Your task to perform on an android device: Set the phone to "Do not disturb". Image 0: 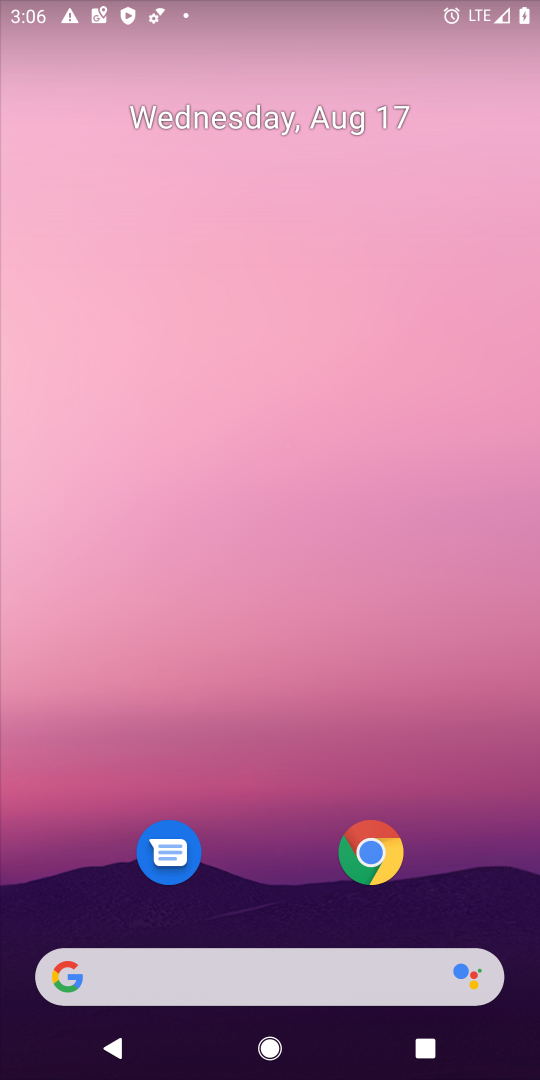
Step 0: drag from (363, 18) to (296, 725)
Your task to perform on an android device: Set the phone to "Do not disturb". Image 1: 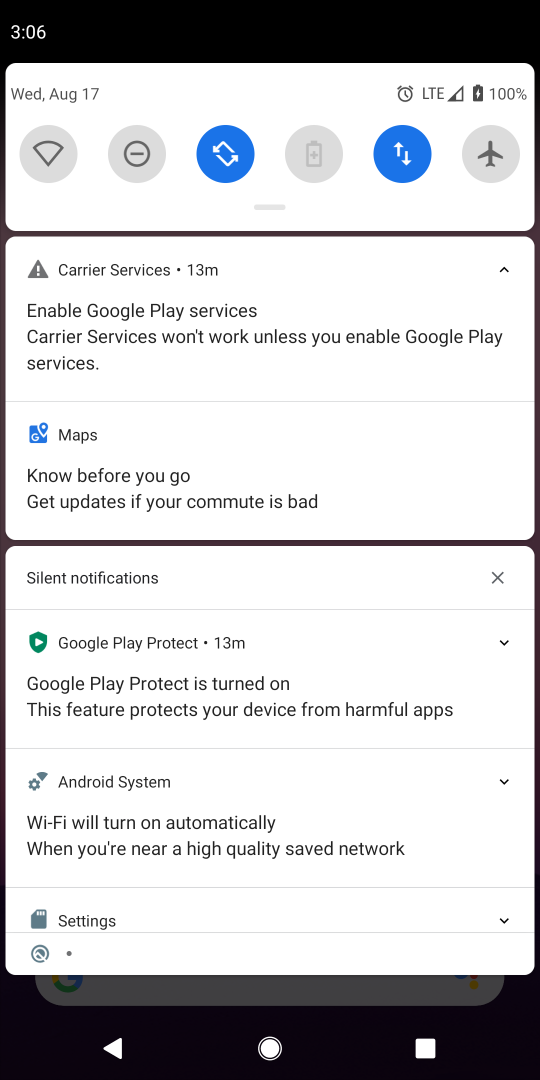
Step 1: click (135, 140)
Your task to perform on an android device: Set the phone to "Do not disturb". Image 2: 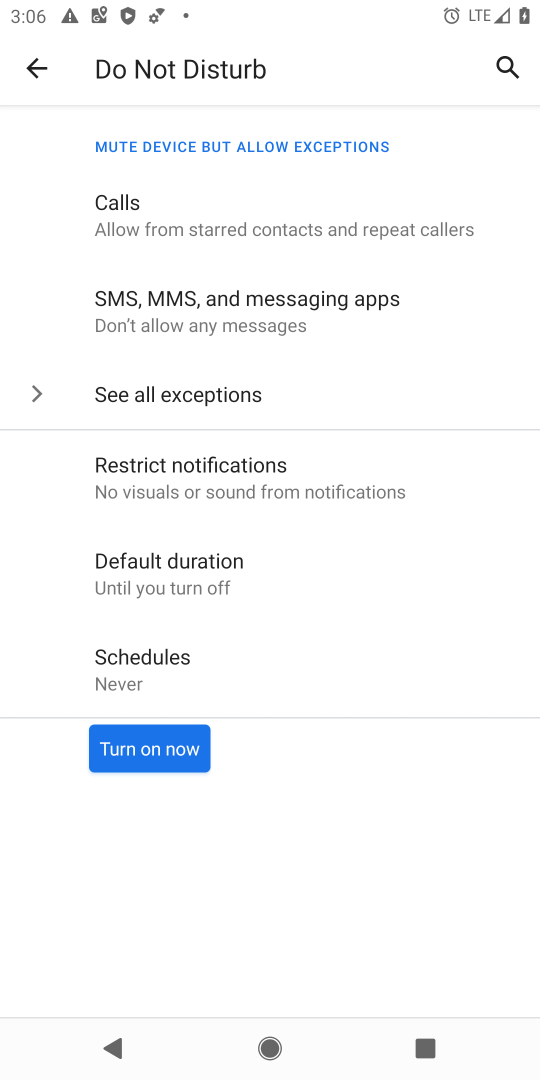
Step 2: task complete